Your task to perform on an android device: install app "HBO Max: Stream TV & Movies" Image 0: 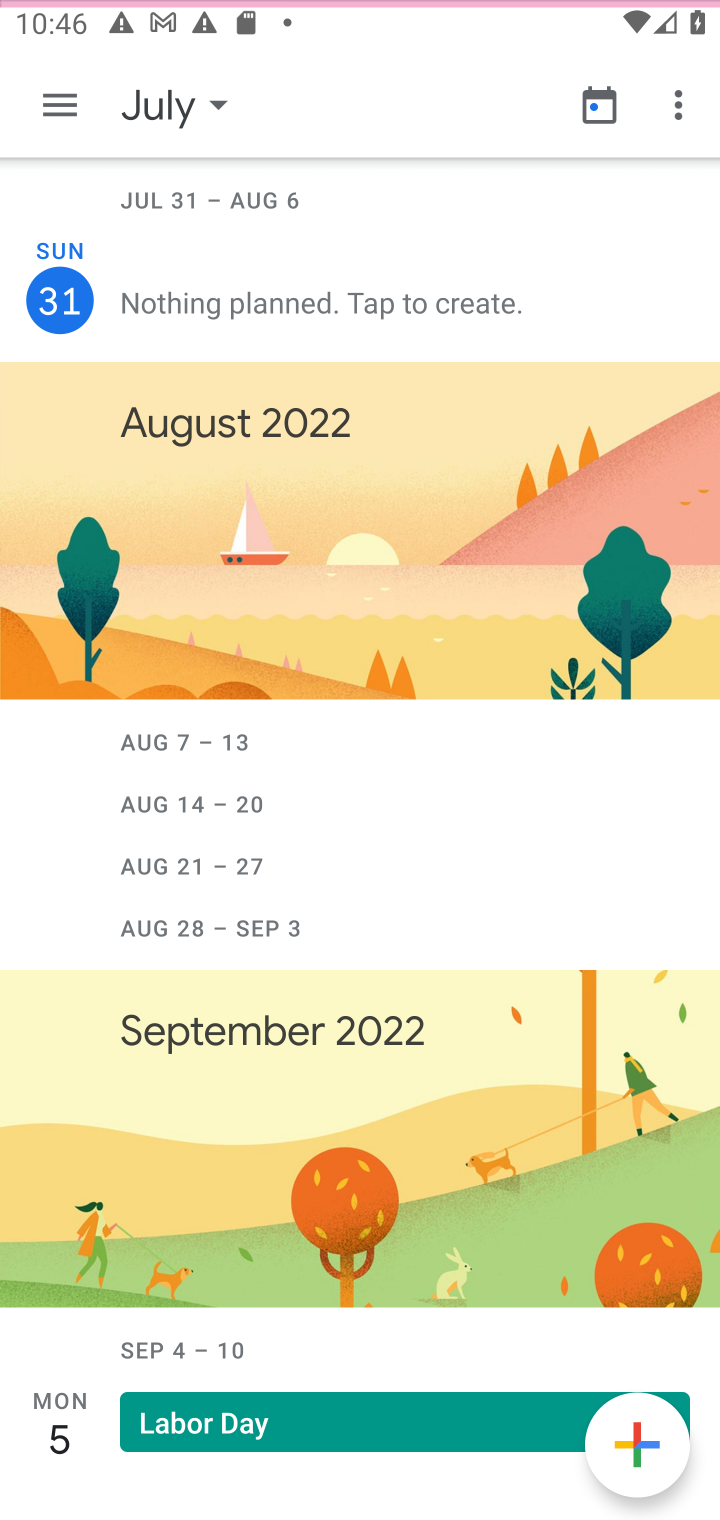
Step 0: press home button
Your task to perform on an android device: install app "HBO Max: Stream TV & Movies" Image 1: 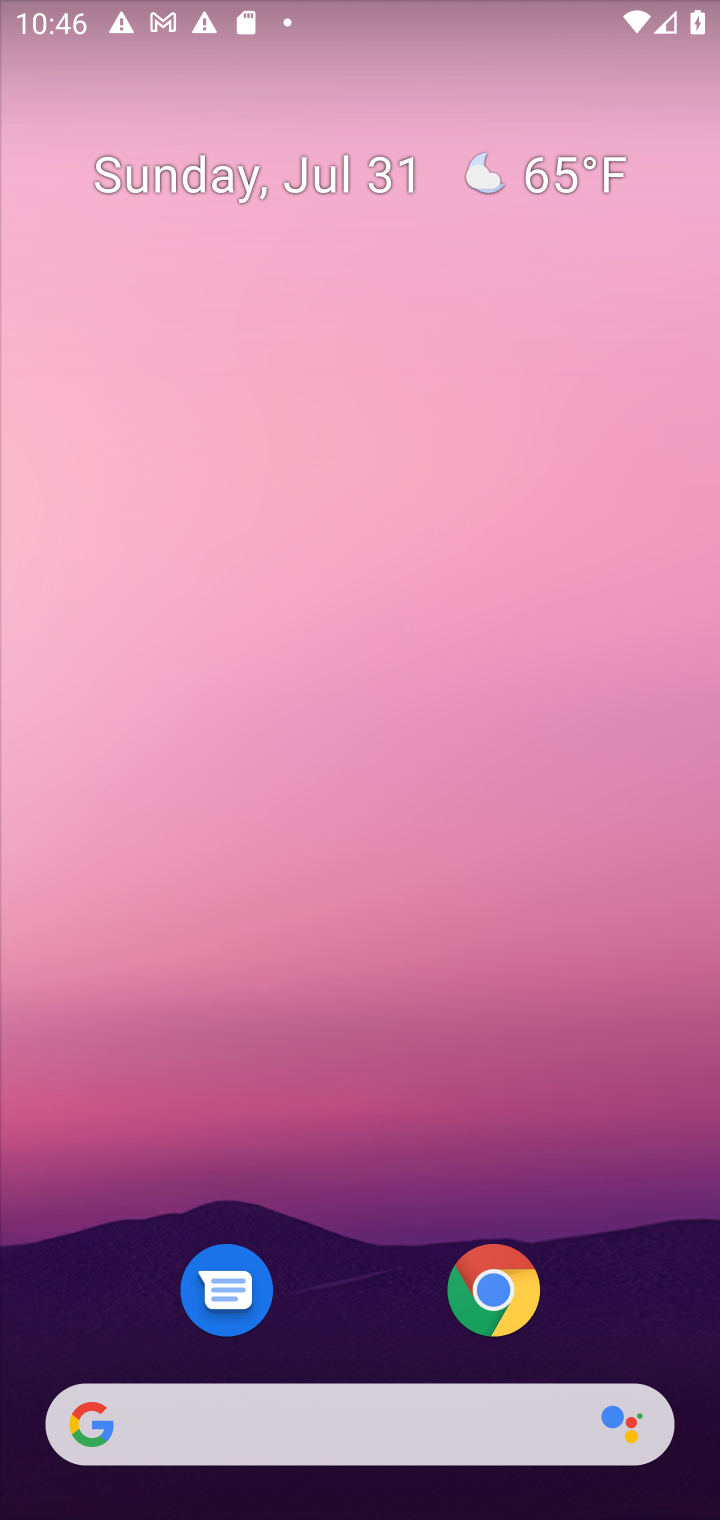
Step 1: press home button
Your task to perform on an android device: install app "HBO Max: Stream TV & Movies" Image 2: 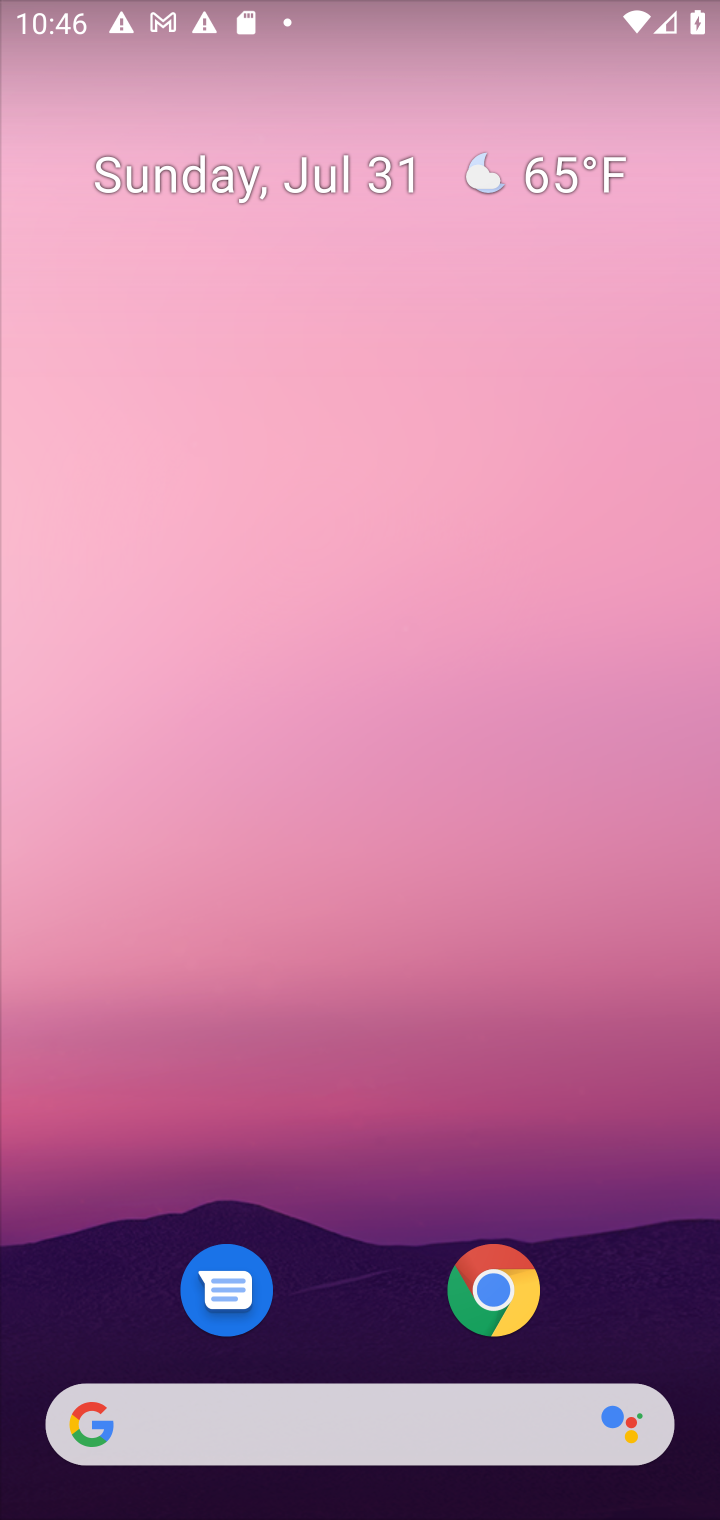
Step 2: drag from (602, 1139) to (542, 129)
Your task to perform on an android device: install app "HBO Max: Stream TV & Movies" Image 3: 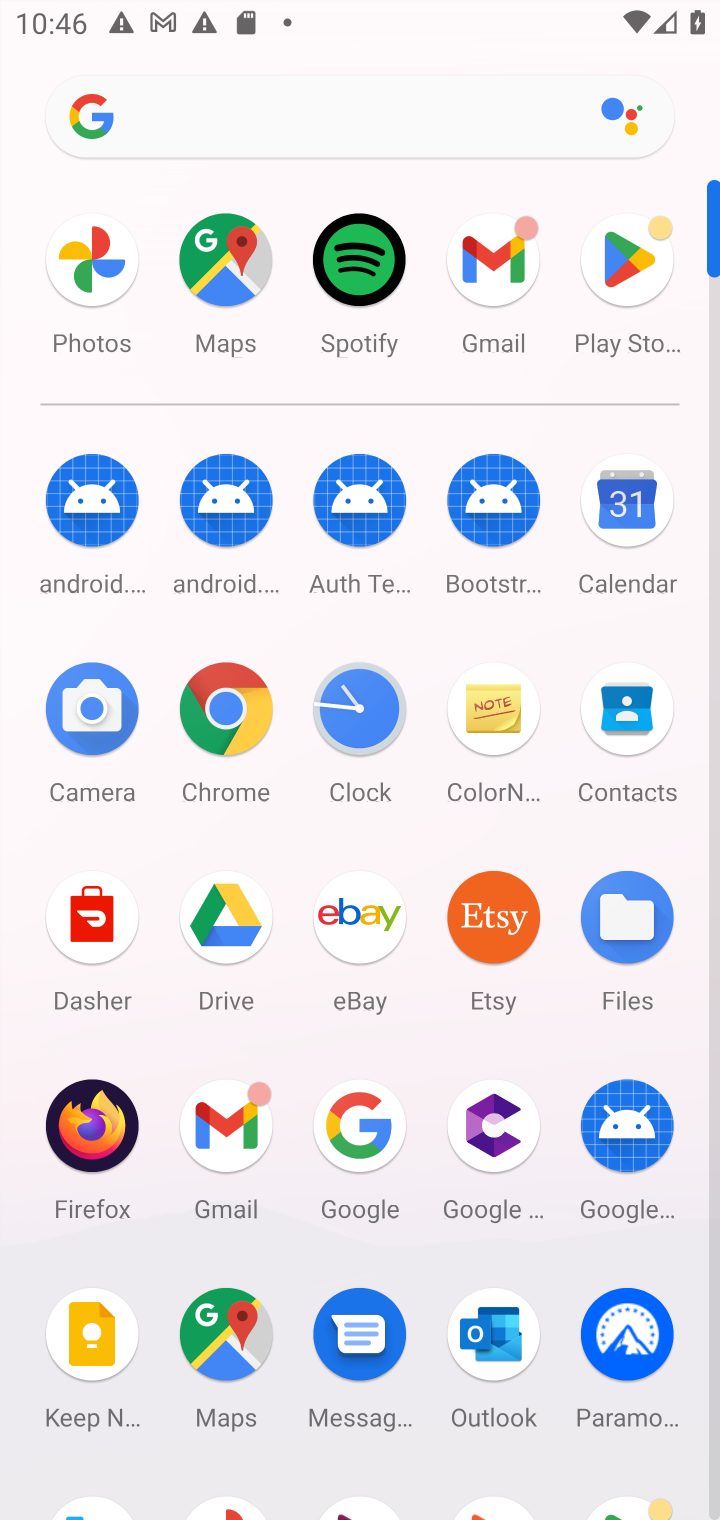
Step 3: click (644, 277)
Your task to perform on an android device: install app "HBO Max: Stream TV & Movies" Image 4: 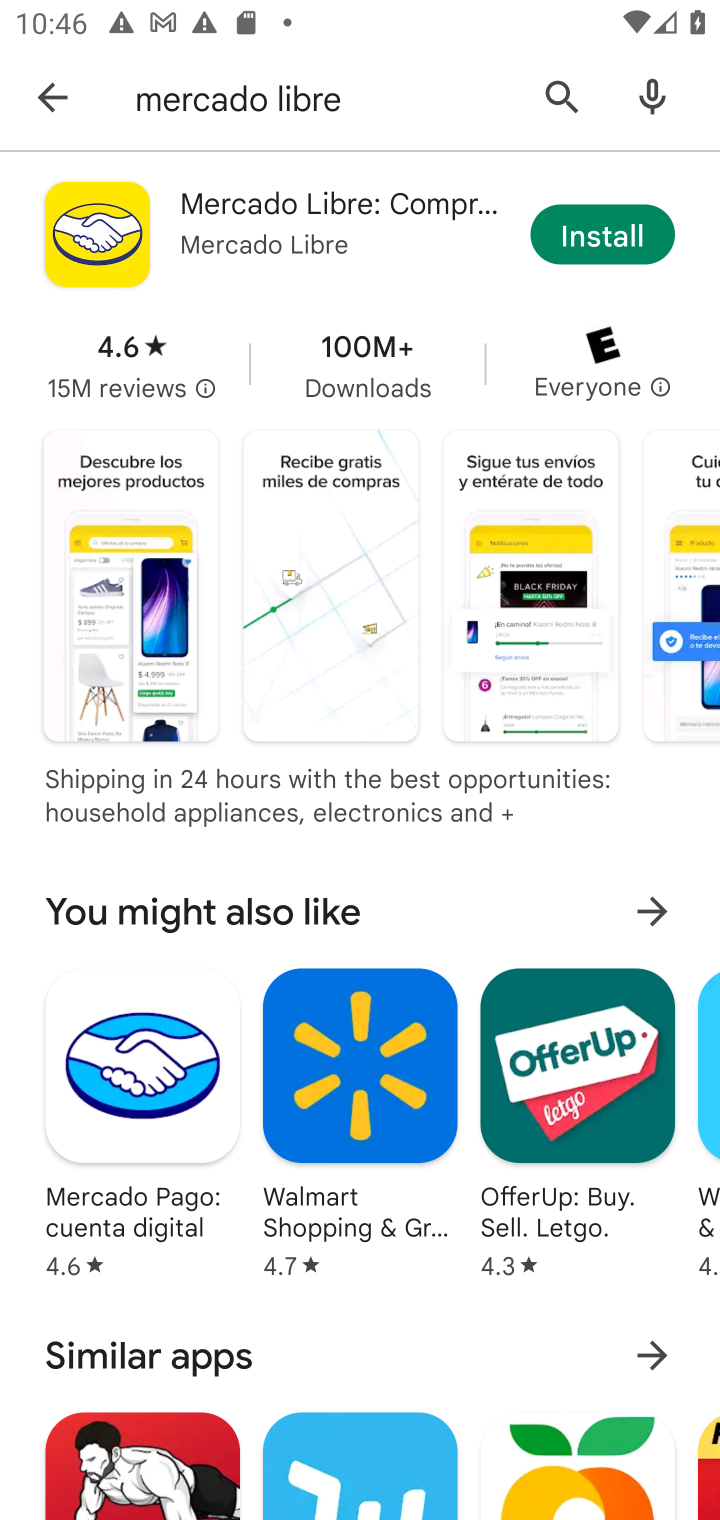
Step 4: click (557, 88)
Your task to perform on an android device: install app "HBO Max: Stream TV & Movies" Image 5: 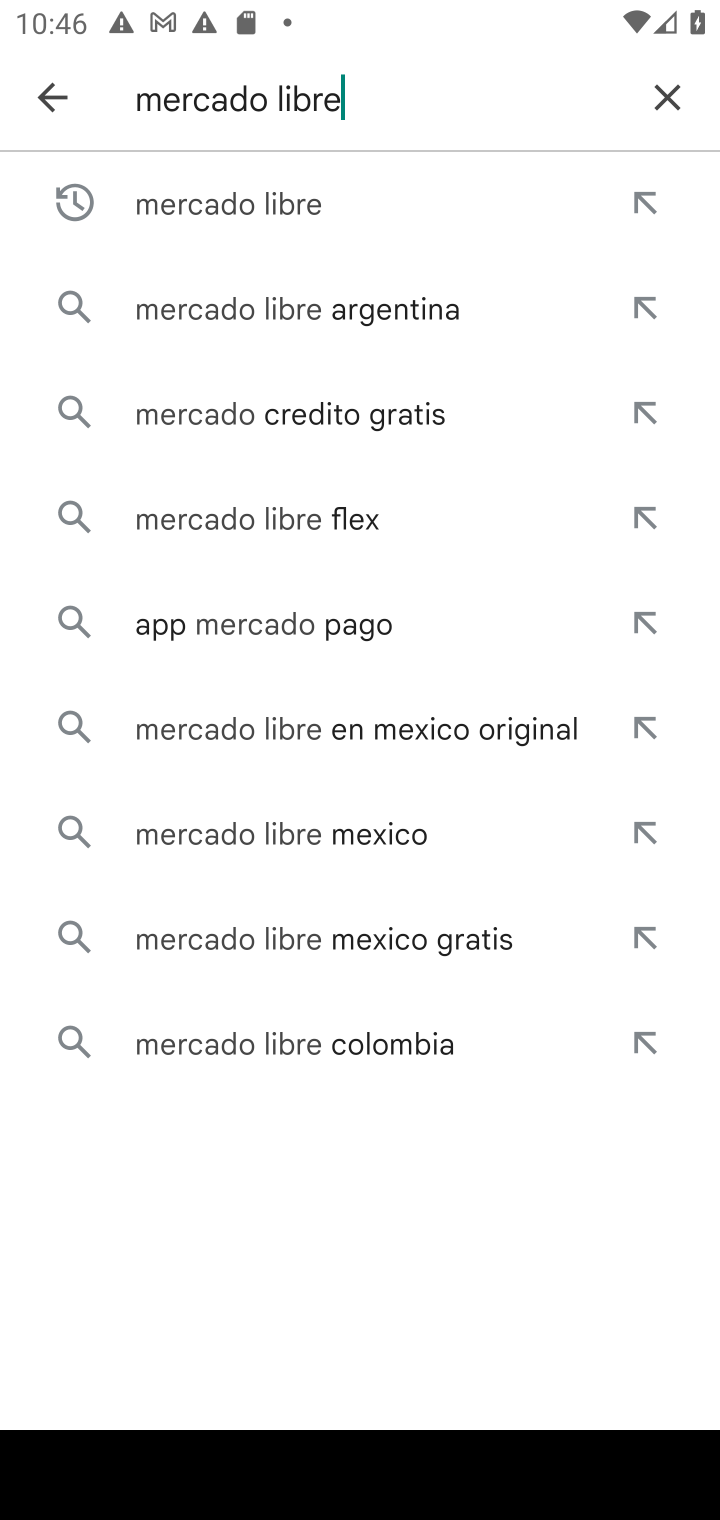
Step 5: click (669, 109)
Your task to perform on an android device: install app "HBO Max: Stream TV & Movies" Image 6: 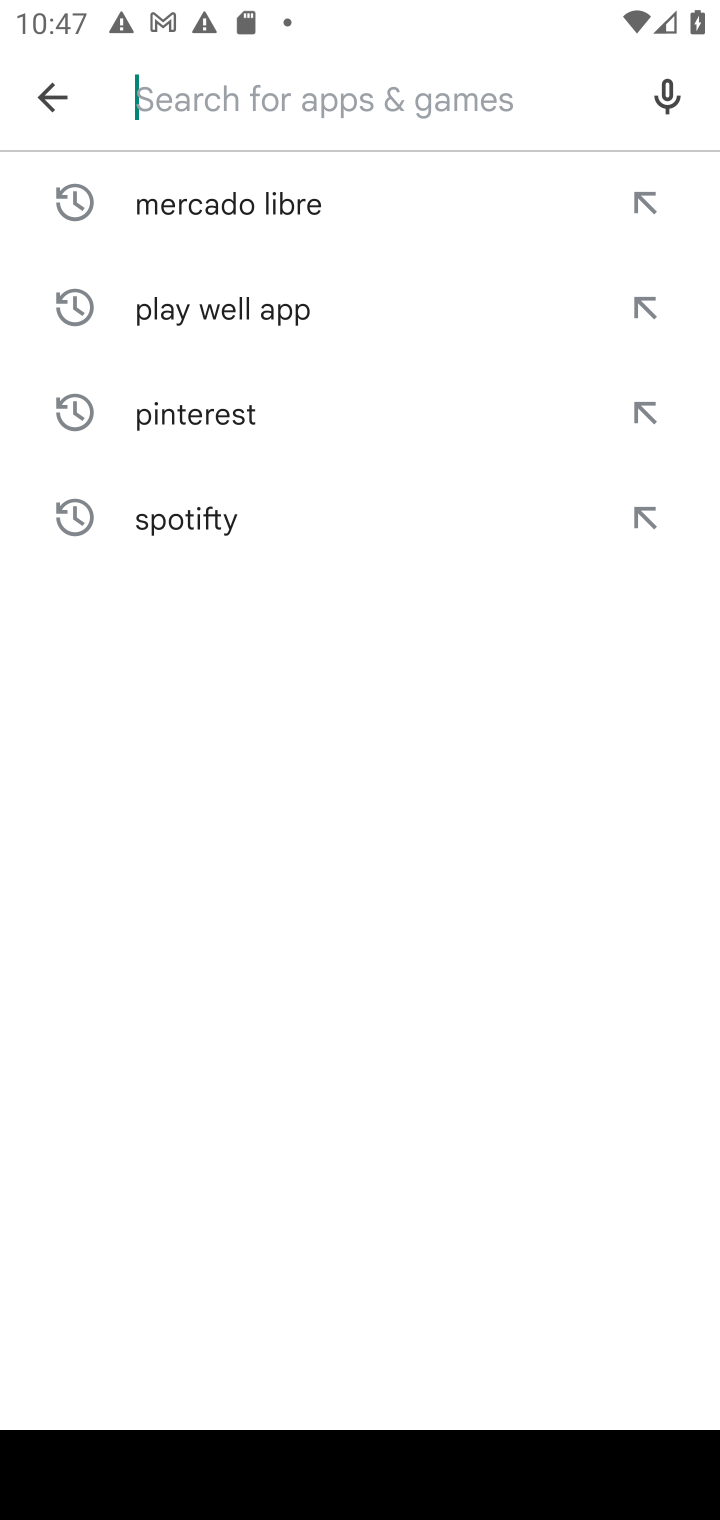
Step 6: type "HBO Max: Stream TV & Movies"
Your task to perform on an android device: install app "HBO Max: Stream TV & Movies" Image 7: 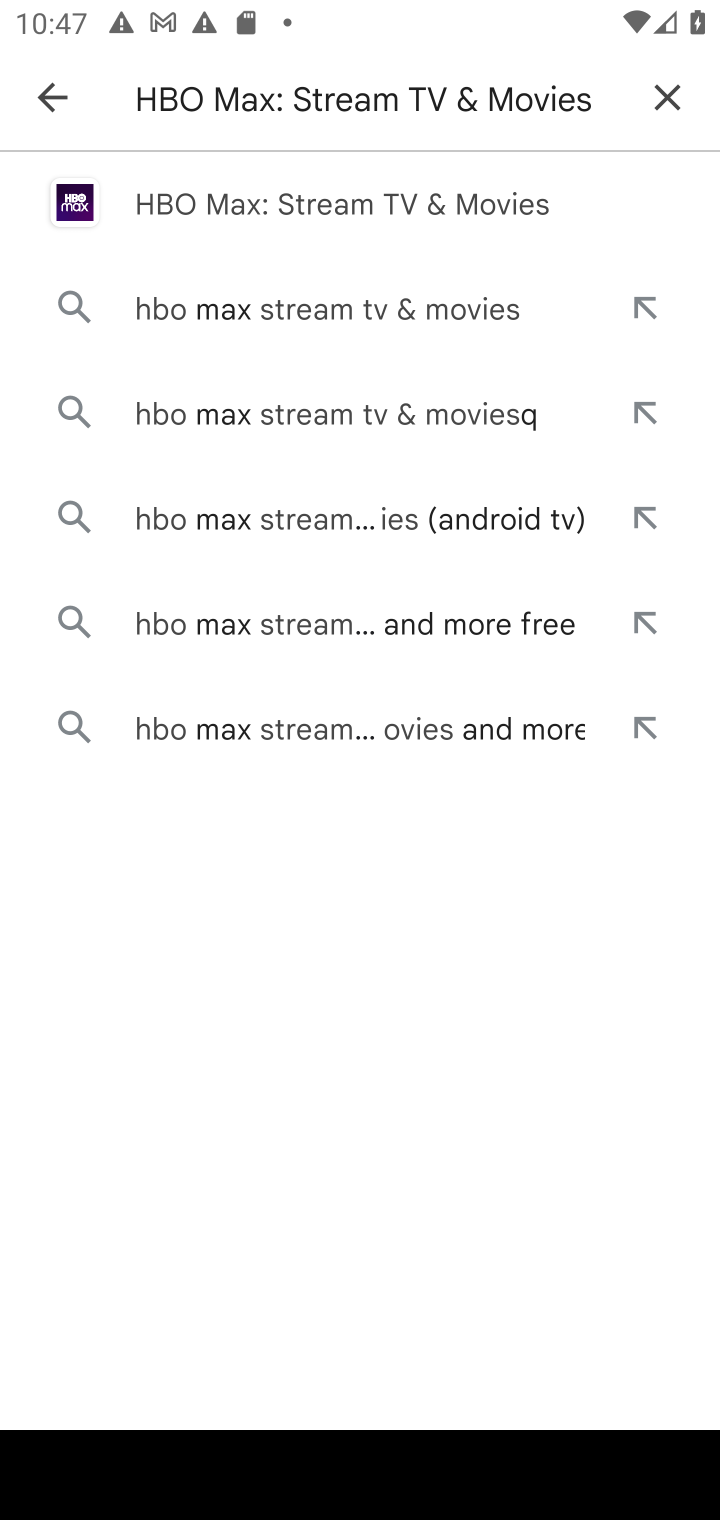
Step 7: click (330, 209)
Your task to perform on an android device: install app "HBO Max: Stream TV & Movies" Image 8: 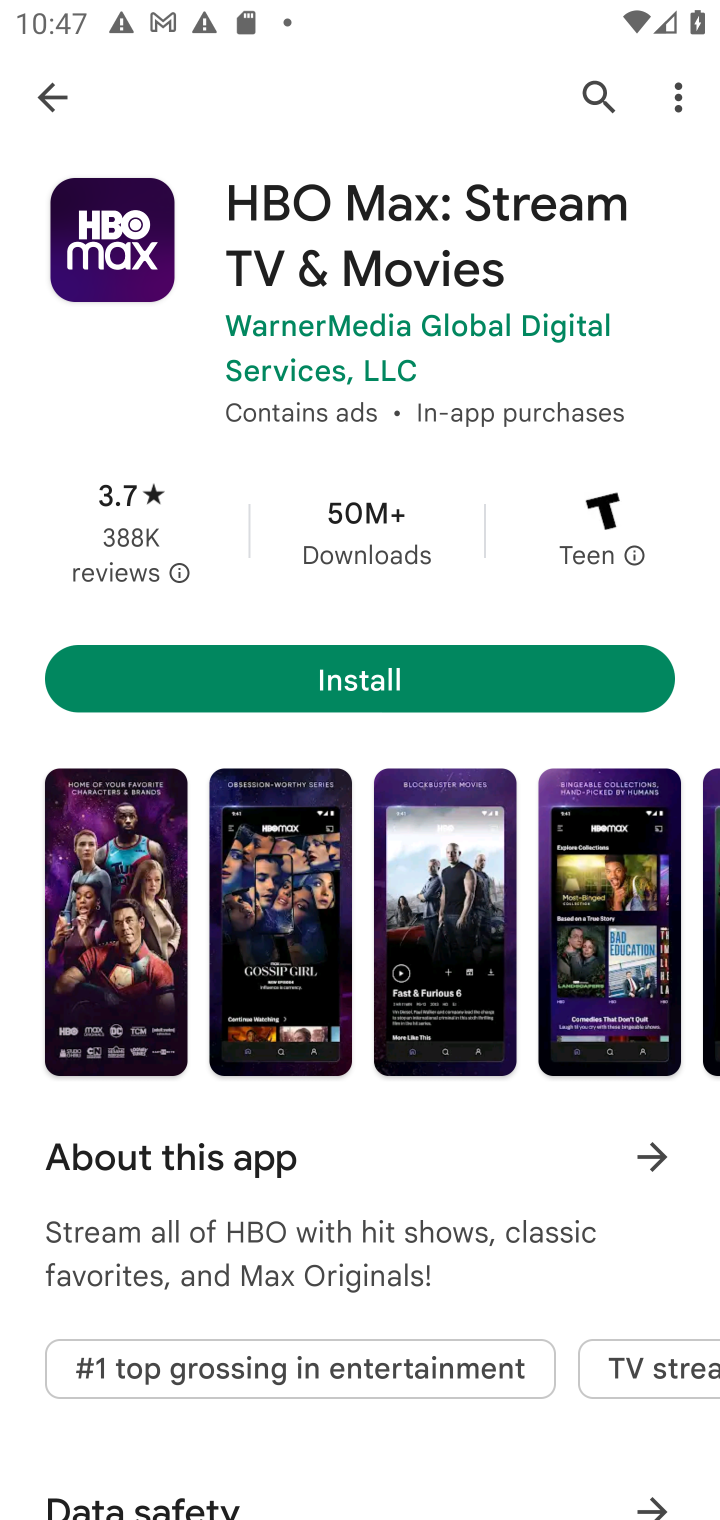
Step 8: click (361, 698)
Your task to perform on an android device: install app "HBO Max: Stream TV & Movies" Image 9: 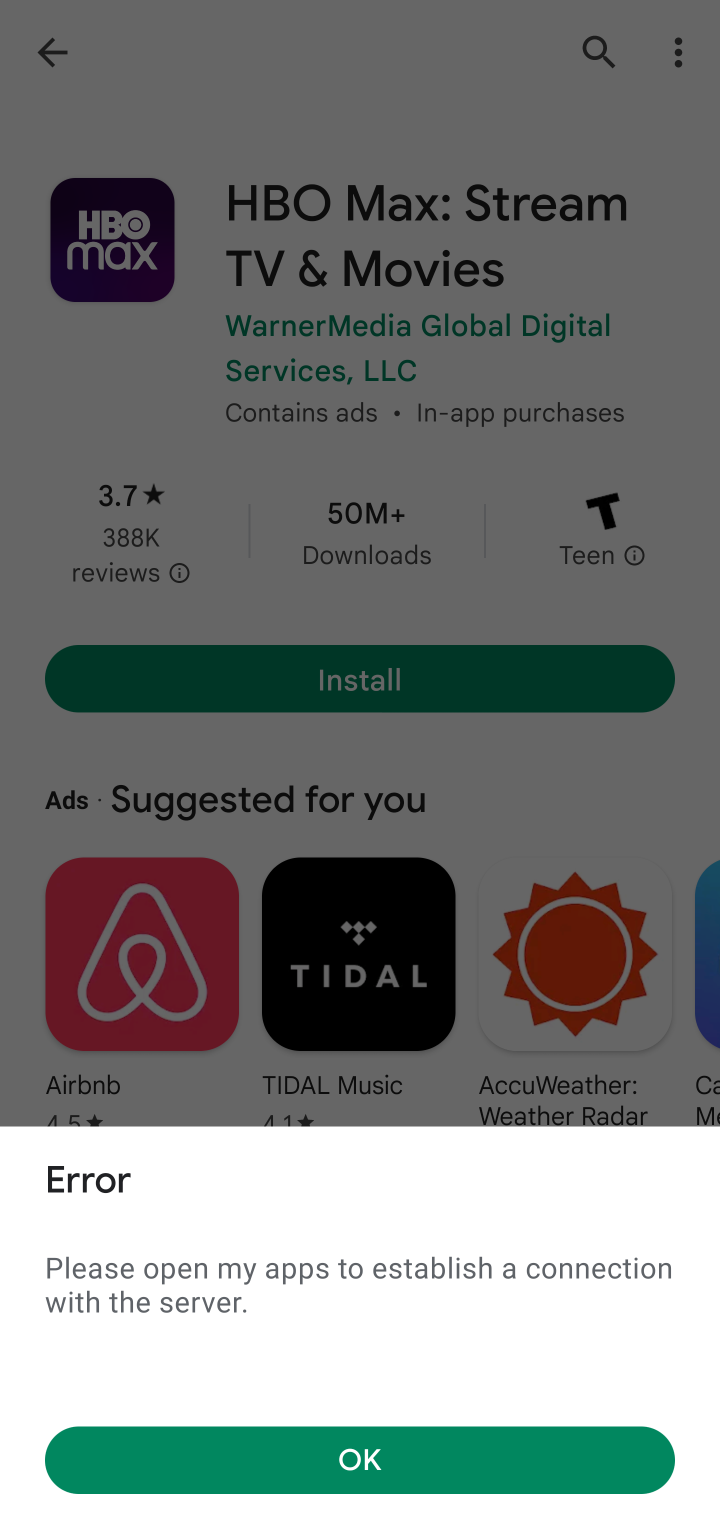
Step 9: task complete